Your task to perform on an android device: empty trash in the gmail app Image 0: 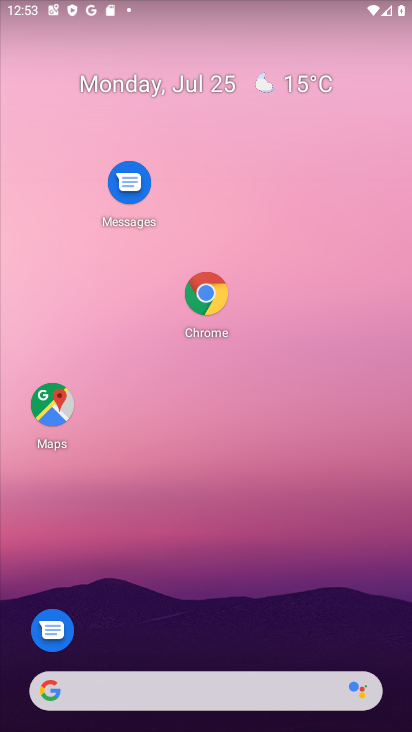
Step 0: drag from (245, 584) to (310, 124)
Your task to perform on an android device: empty trash in the gmail app Image 1: 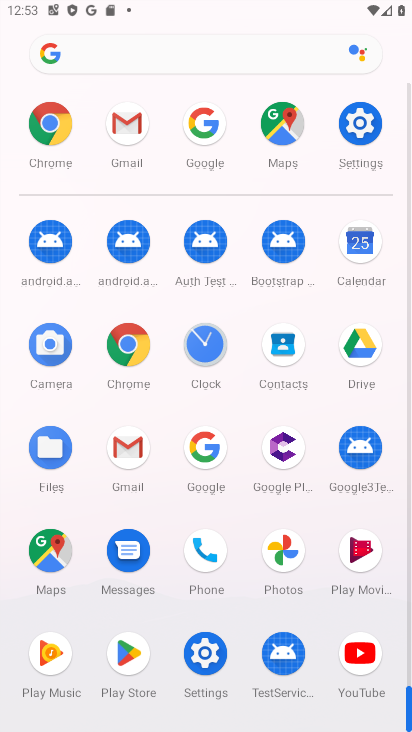
Step 1: click (136, 447)
Your task to perform on an android device: empty trash in the gmail app Image 2: 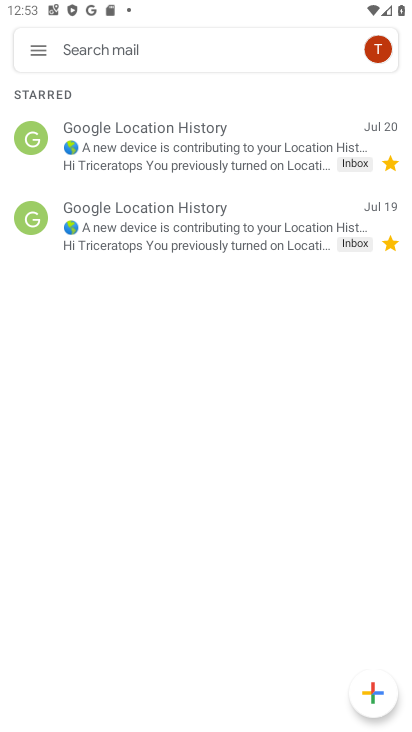
Step 2: click (42, 43)
Your task to perform on an android device: empty trash in the gmail app Image 3: 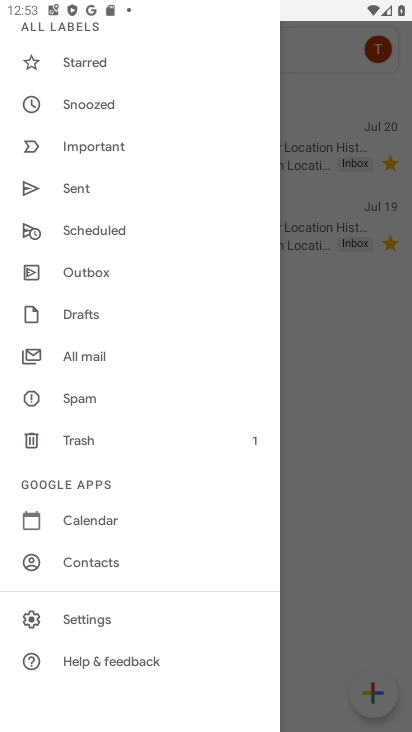
Step 3: click (76, 438)
Your task to perform on an android device: empty trash in the gmail app Image 4: 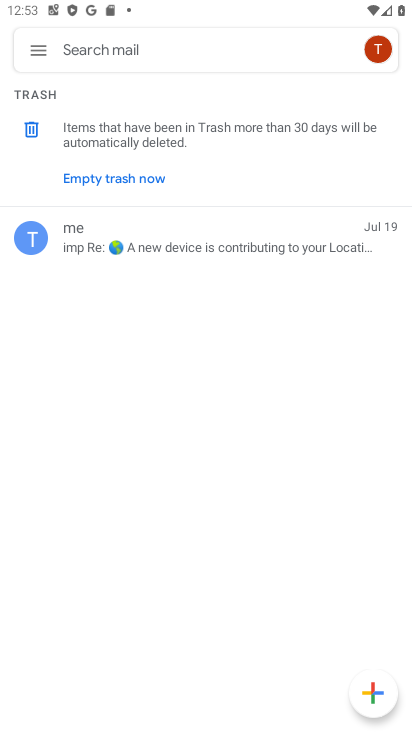
Step 4: task complete